Your task to perform on an android device: Search for sushi restaurants on Maps Image 0: 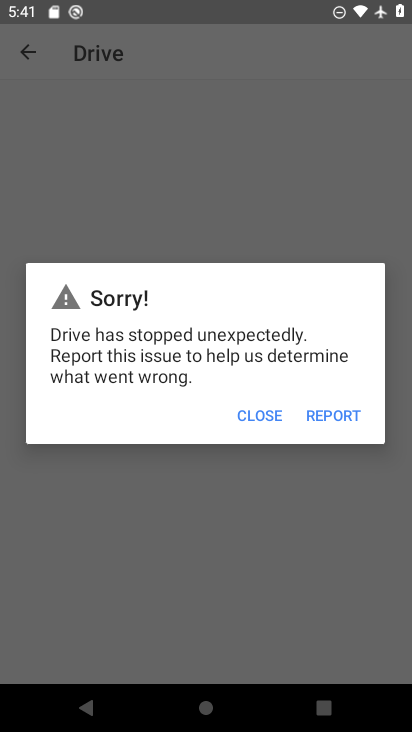
Step 0: click (248, 415)
Your task to perform on an android device: Search for sushi restaurants on Maps Image 1: 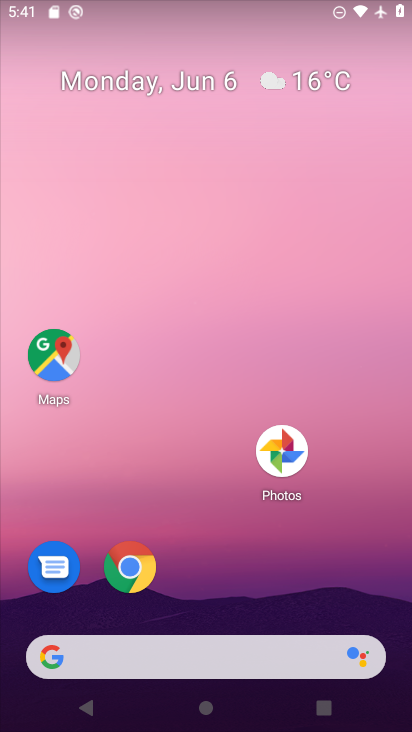
Step 1: drag from (256, 691) to (256, 231)
Your task to perform on an android device: Search for sushi restaurants on Maps Image 2: 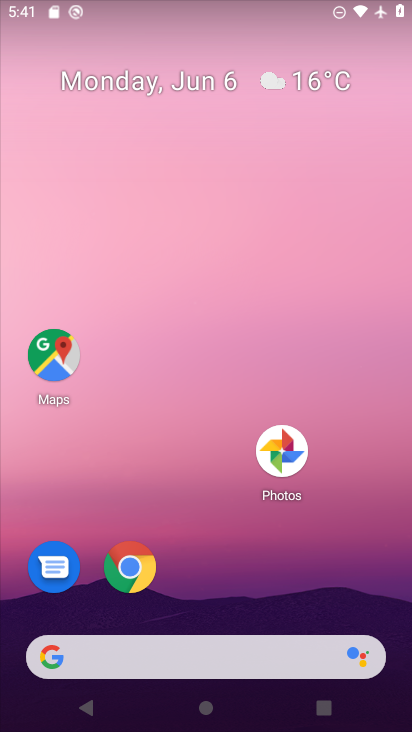
Step 2: drag from (239, 683) to (214, 307)
Your task to perform on an android device: Search for sushi restaurants on Maps Image 3: 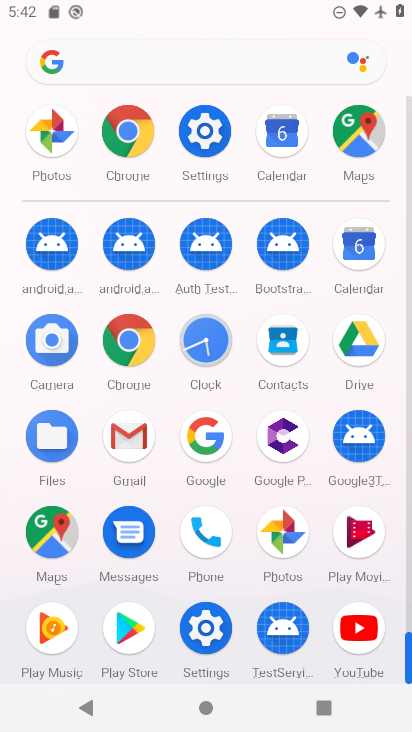
Step 3: click (45, 535)
Your task to perform on an android device: Search for sushi restaurants on Maps Image 4: 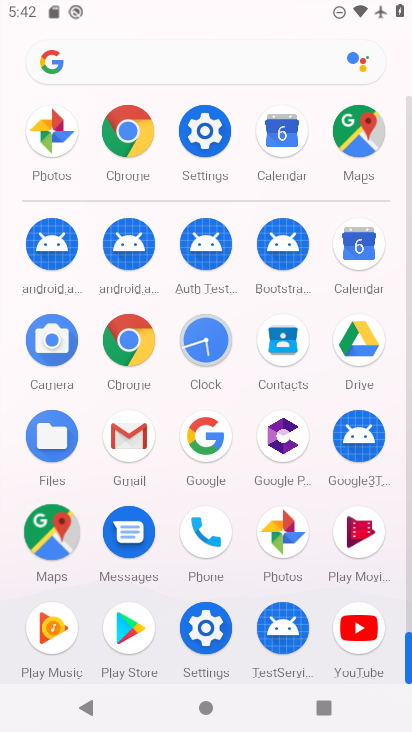
Step 4: click (56, 525)
Your task to perform on an android device: Search for sushi restaurants on Maps Image 5: 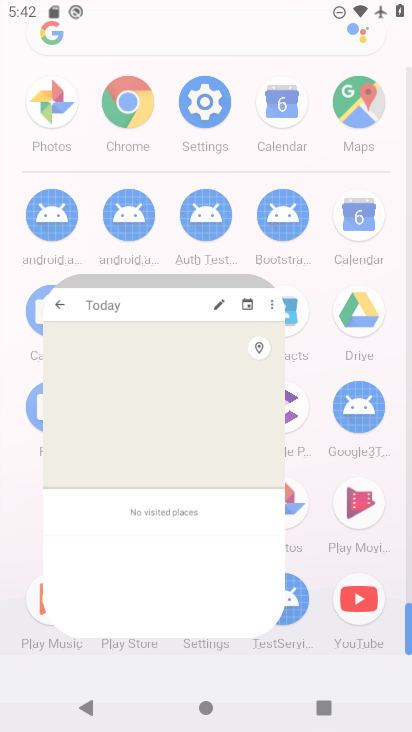
Step 5: click (58, 525)
Your task to perform on an android device: Search for sushi restaurants on Maps Image 6: 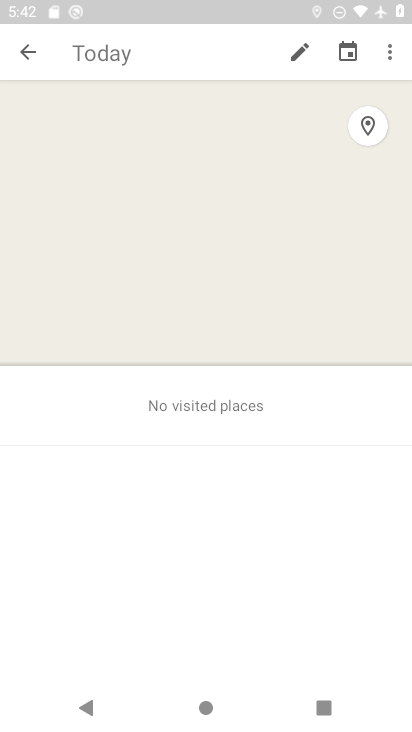
Step 6: click (77, 50)
Your task to perform on an android device: Search for sushi restaurants on Maps Image 7: 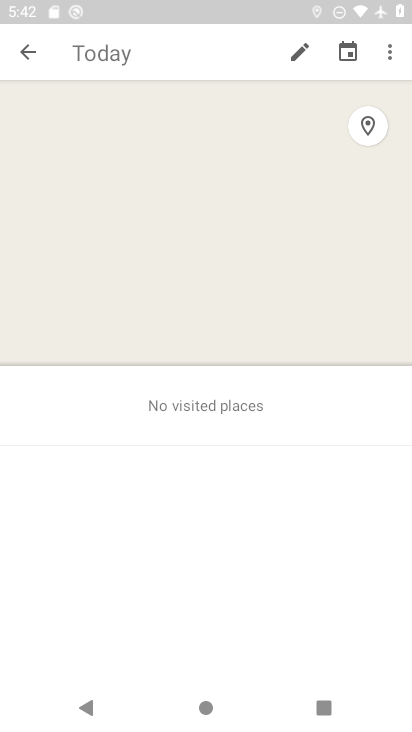
Step 7: click (85, 53)
Your task to perform on an android device: Search for sushi restaurants on Maps Image 8: 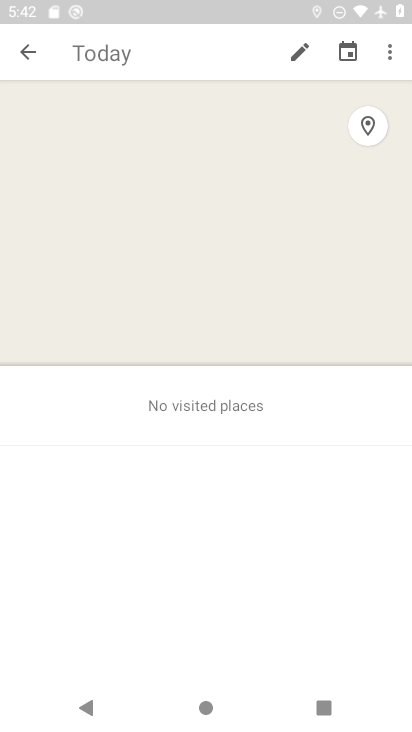
Step 8: click (92, 58)
Your task to perform on an android device: Search for sushi restaurants on Maps Image 9: 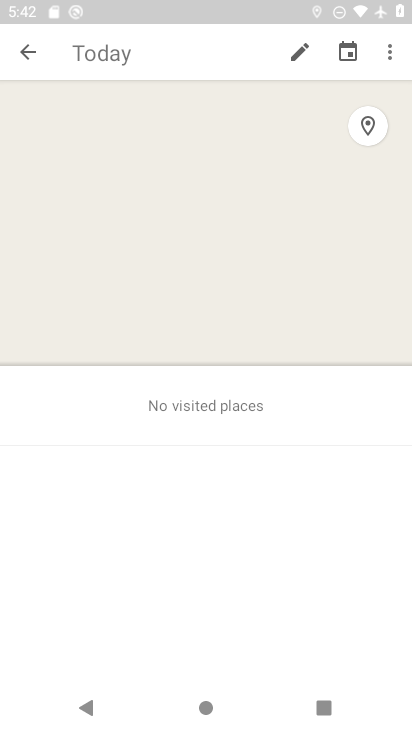
Step 9: click (95, 57)
Your task to perform on an android device: Search for sushi restaurants on Maps Image 10: 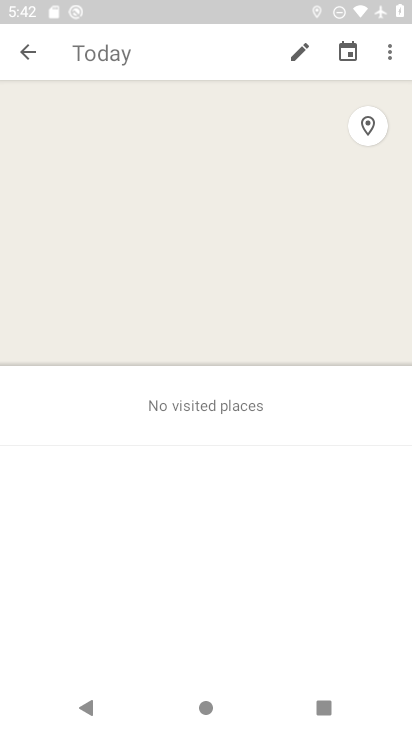
Step 10: click (96, 56)
Your task to perform on an android device: Search for sushi restaurants on Maps Image 11: 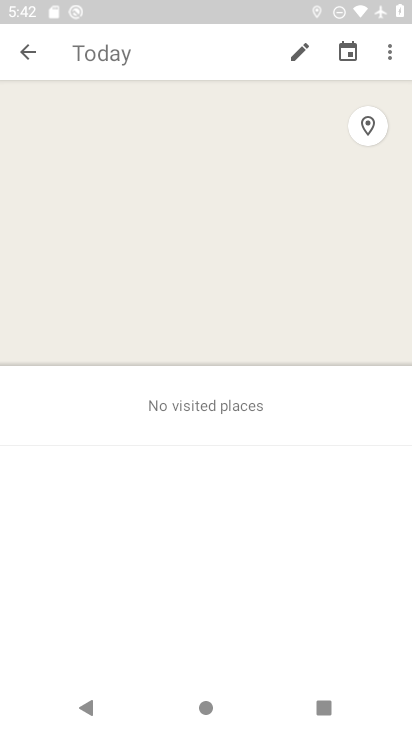
Step 11: click (95, 31)
Your task to perform on an android device: Search for sushi restaurants on Maps Image 12: 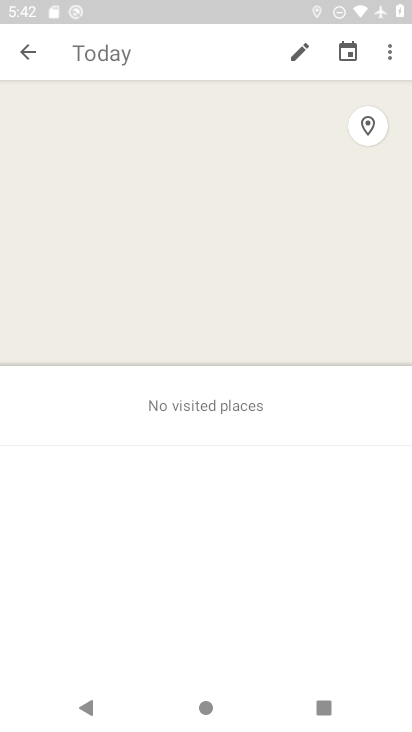
Step 12: click (95, 44)
Your task to perform on an android device: Search for sushi restaurants on Maps Image 13: 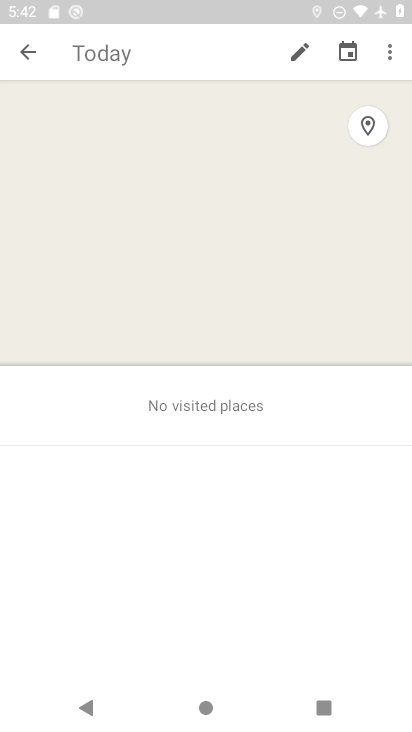
Step 13: click (82, 55)
Your task to perform on an android device: Search for sushi restaurants on Maps Image 14: 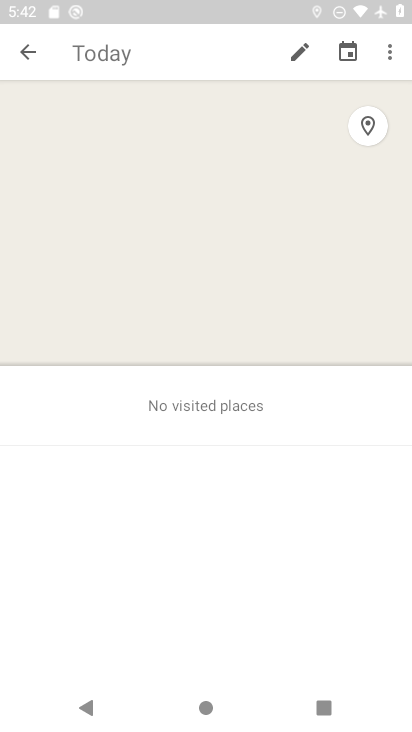
Step 14: click (82, 51)
Your task to perform on an android device: Search for sushi restaurants on Maps Image 15: 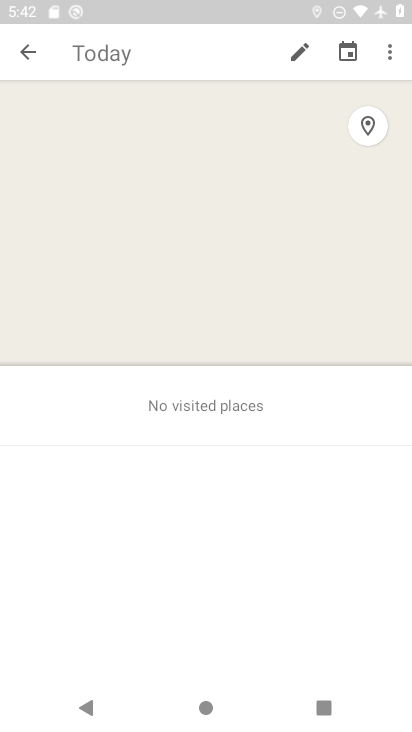
Step 15: click (85, 50)
Your task to perform on an android device: Search for sushi restaurants on Maps Image 16: 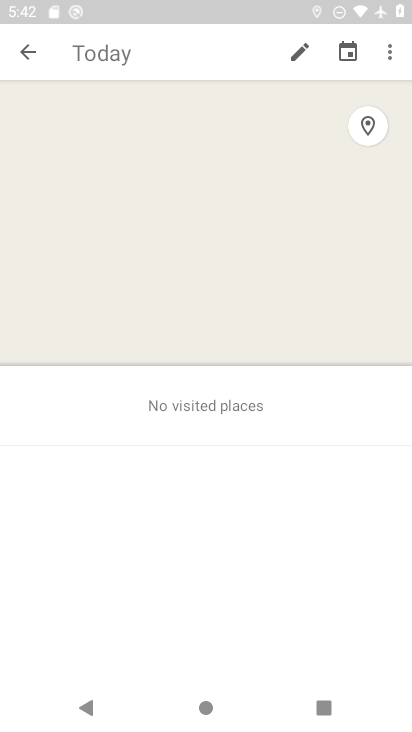
Step 16: click (88, 50)
Your task to perform on an android device: Search for sushi restaurants on Maps Image 17: 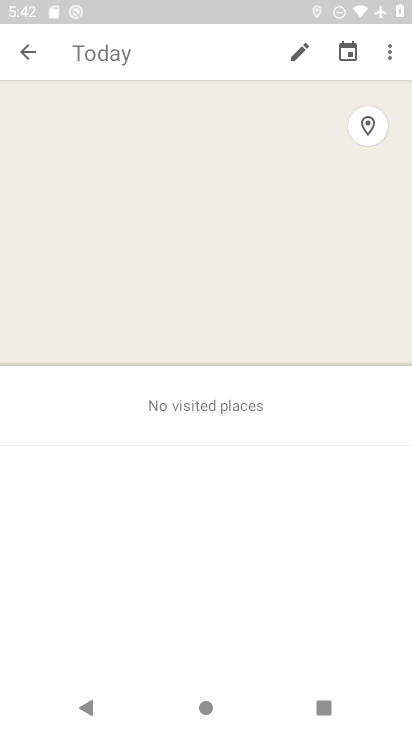
Step 17: click (92, 51)
Your task to perform on an android device: Search for sushi restaurants on Maps Image 18: 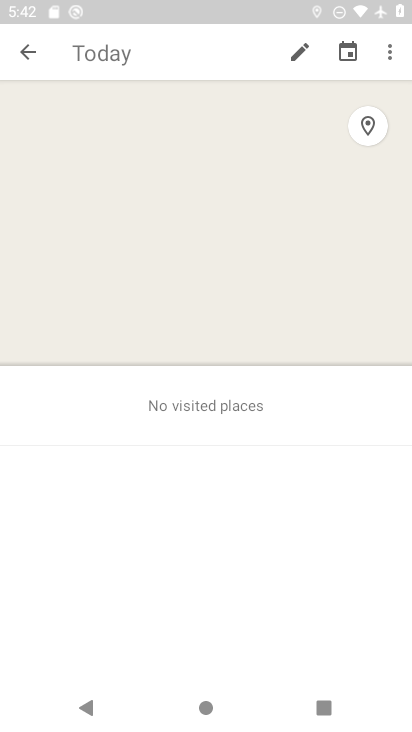
Step 18: click (94, 53)
Your task to perform on an android device: Search for sushi restaurants on Maps Image 19: 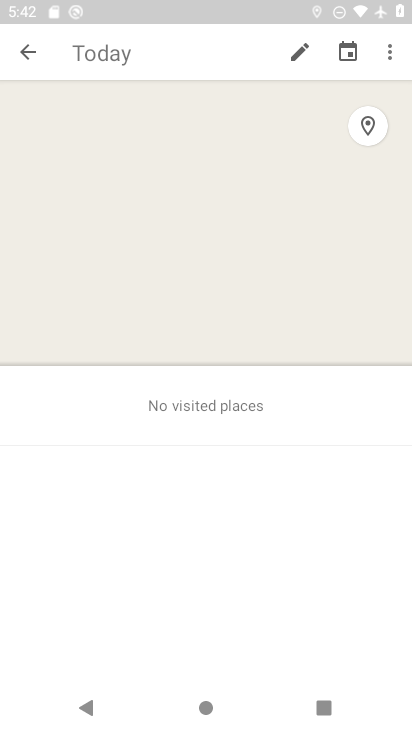
Step 19: click (100, 51)
Your task to perform on an android device: Search for sushi restaurants on Maps Image 20: 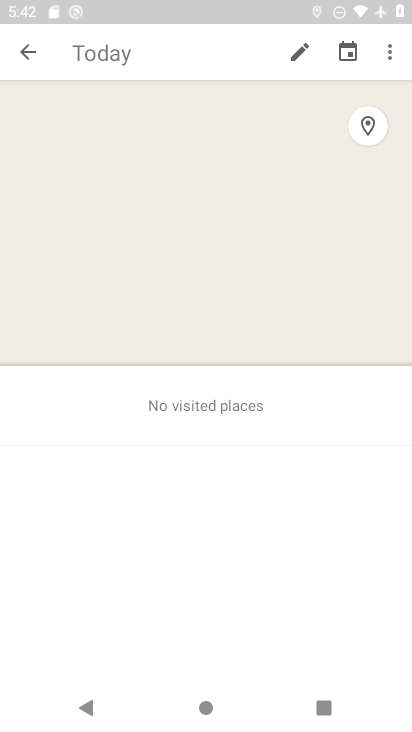
Step 20: click (99, 53)
Your task to perform on an android device: Search for sushi restaurants on Maps Image 21: 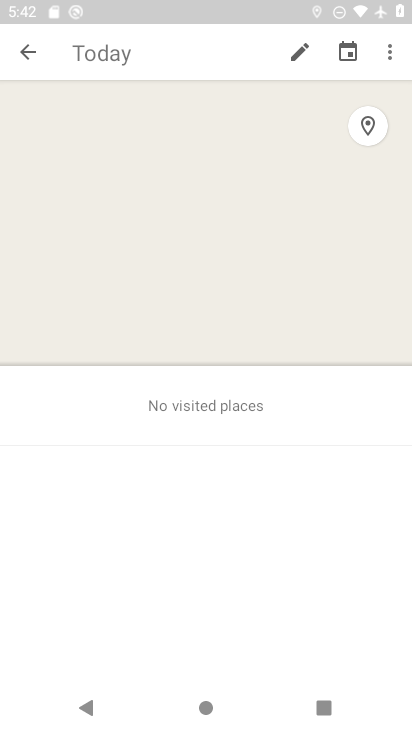
Step 21: click (98, 53)
Your task to perform on an android device: Search for sushi restaurants on Maps Image 22: 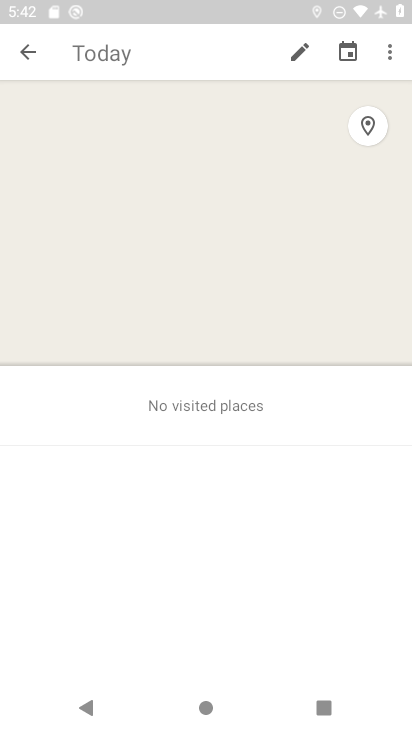
Step 22: click (95, 50)
Your task to perform on an android device: Search for sushi restaurants on Maps Image 23: 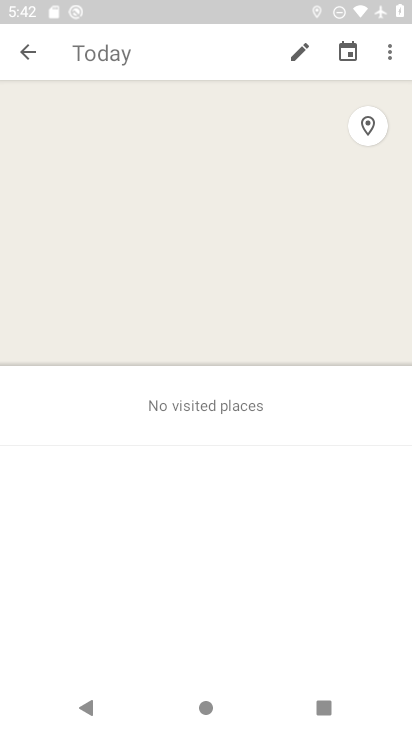
Step 23: click (83, 48)
Your task to perform on an android device: Search for sushi restaurants on Maps Image 24: 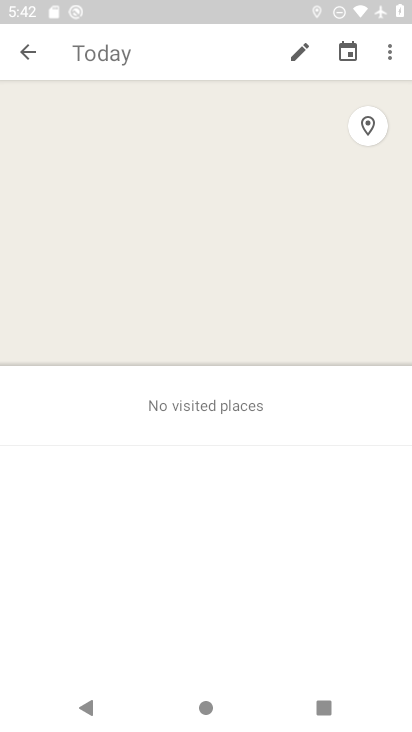
Step 24: type "sushi restaurants"
Your task to perform on an android device: Search for sushi restaurants on Maps Image 25: 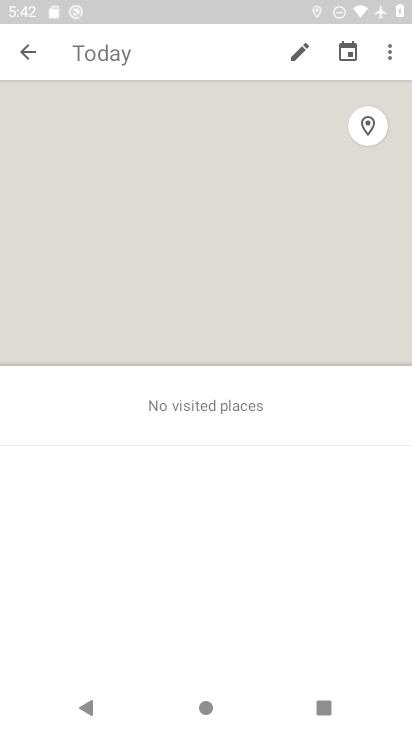
Step 25: task complete